Your task to perform on an android device: Open the map Image 0: 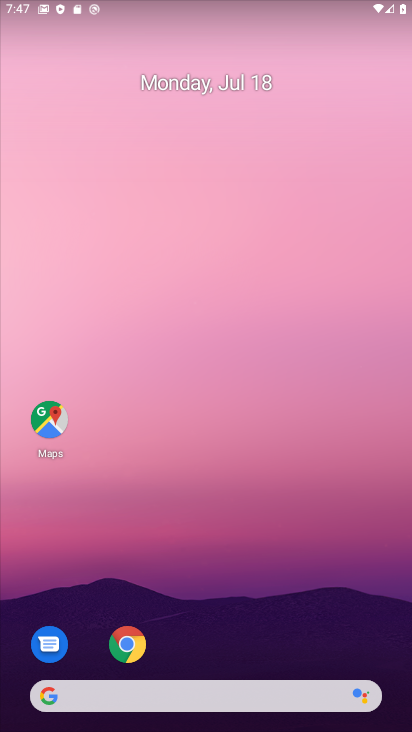
Step 0: click (49, 429)
Your task to perform on an android device: Open the map Image 1: 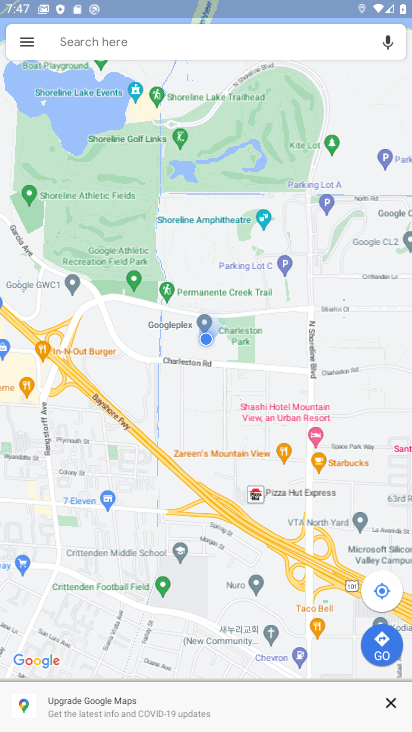
Step 1: task complete